Your task to perform on an android device: Open Youtube and go to "Your channel" Image 0: 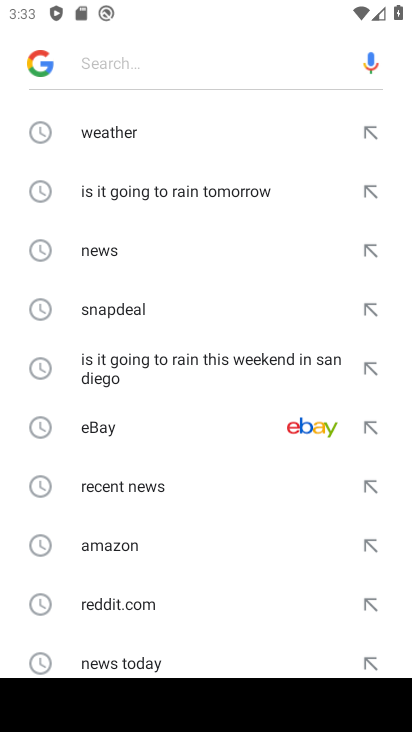
Step 0: press home button
Your task to perform on an android device: Open Youtube and go to "Your channel" Image 1: 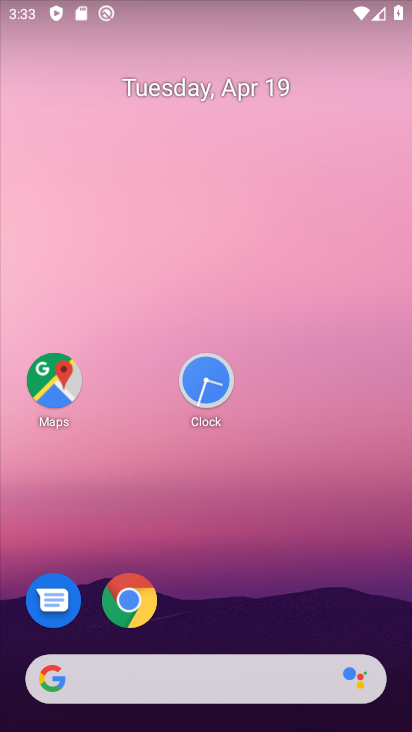
Step 1: drag from (394, 721) to (213, 296)
Your task to perform on an android device: Open Youtube and go to "Your channel" Image 2: 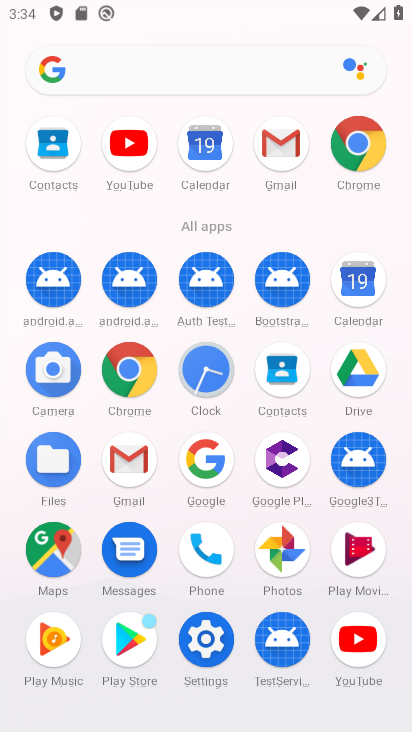
Step 2: click (355, 641)
Your task to perform on an android device: Open Youtube and go to "Your channel" Image 3: 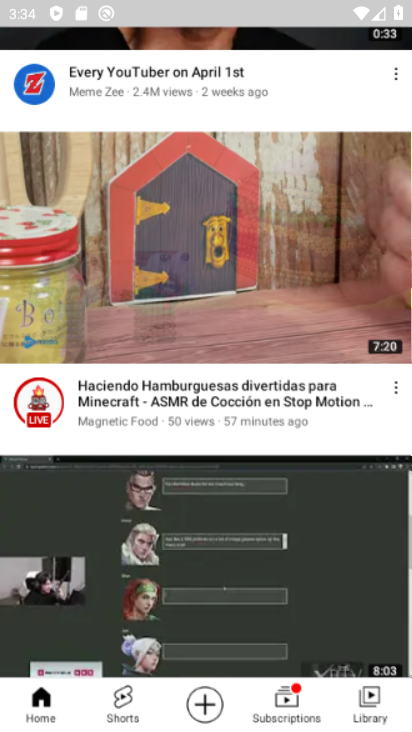
Step 3: click (355, 641)
Your task to perform on an android device: Open Youtube and go to "Your channel" Image 4: 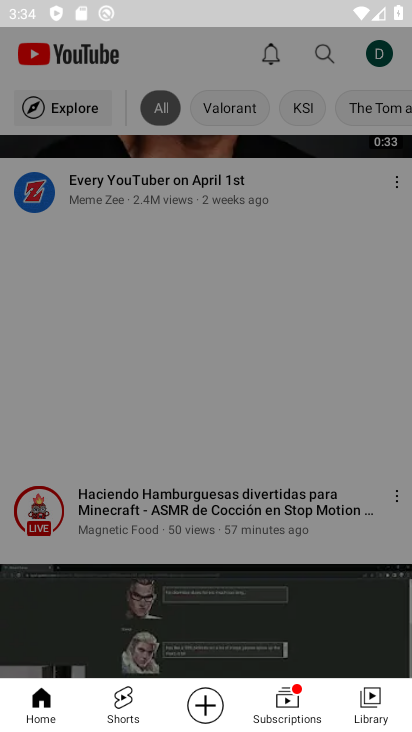
Step 4: click (197, 354)
Your task to perform on an android device: Open Youtube and go to "Your channel" Image 5: 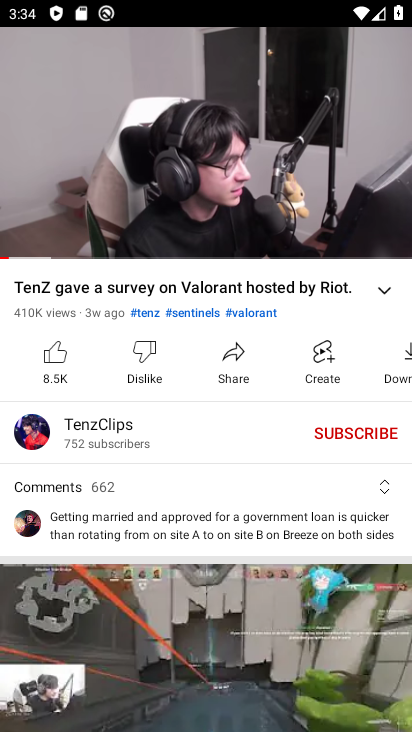
Step 5: task complete